Your task to perform on an android device: Clear the shopping cart on bestbuy. Add lenovo thinkpad to the cart on bestbuy Image 0: 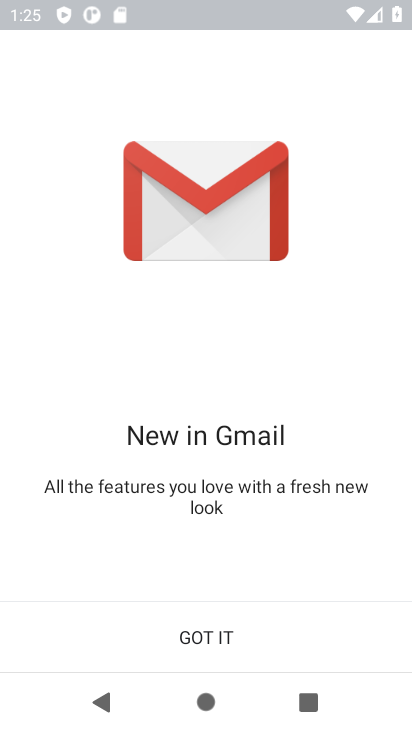
Step 0: press home button
Your task to perform on an android device: Clear the shopping cart on bestbuy. Add lenovo thinkpad to the cart on bestbuy Image 1: 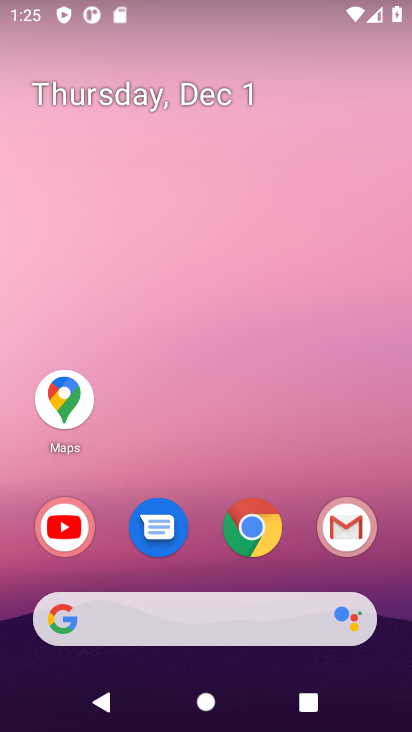
Step 1: click (249, 527)
Your task to perform on an android device: Clear the shopping cart on bestbuy. Add lenovo thinkpad to the cart on bestbuy Image 2: 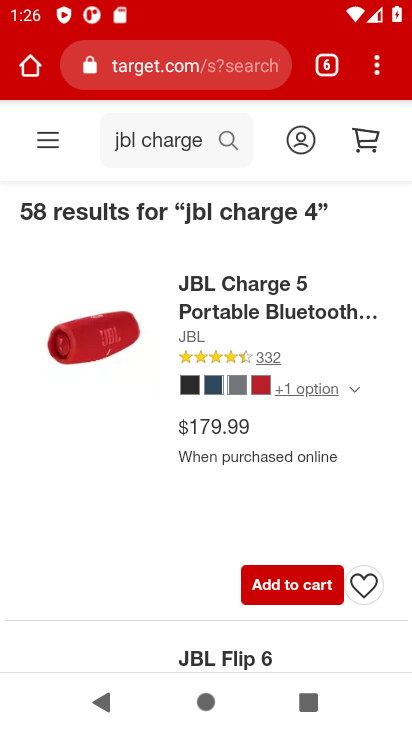
Step 2: click (201, 74)
Your task to perform on an android device: Clear the shopping cart on bestbuy. Add lenovo thinkpad to the cart on bestbuy Image 3: 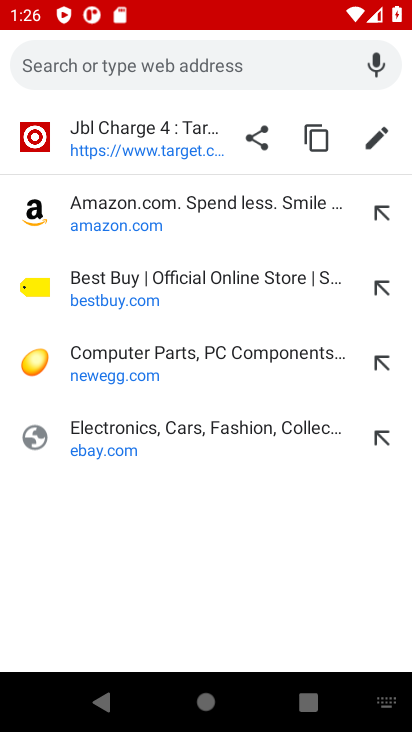
Step 3: click (97, 292)
Your task to perform on an android device: Clear the shopping cart on bestbuy. Add lenovo thinkpad to the cart on bestbuy Image 4: 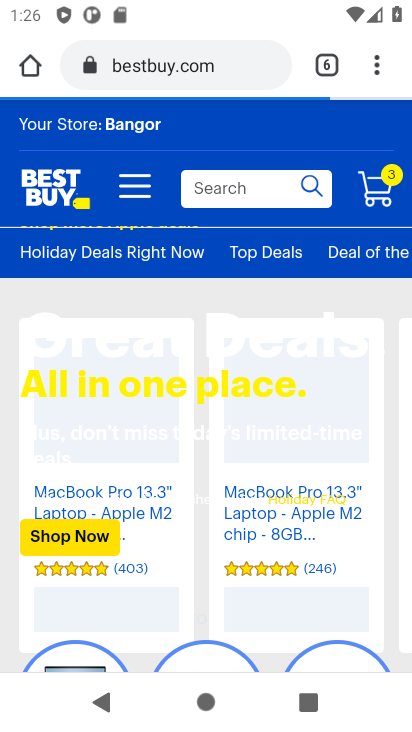
Step 4: click (370, 196)
Your task to perform on an android device: Clear the shopping cart on bestbuy. Add lenovo thinkpad to the cart on bestbuy Image 5: 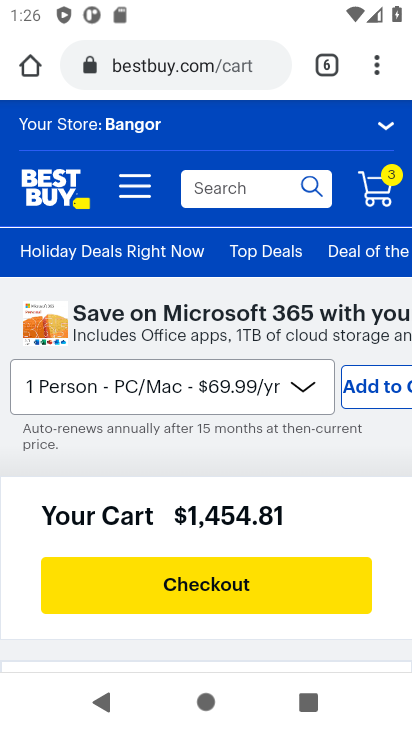
Step 5: drag from (369, 494) to (328, 161)
Your task to perform on an android device: Clear the shopping cart on bestbuy. Add lenovo thinkpad to the cart on bestbuy Image 6: 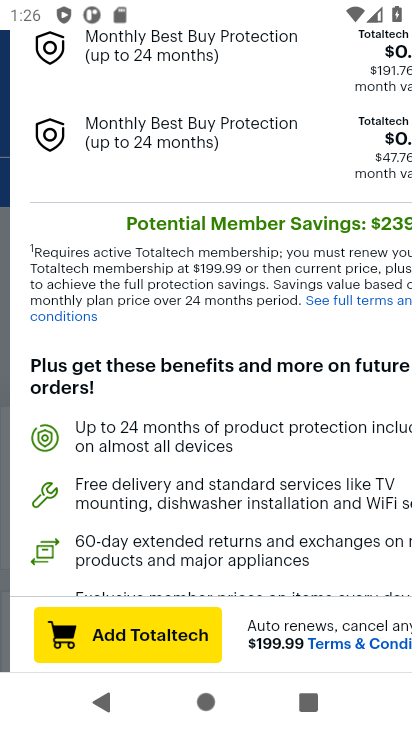
Step 6: click (242, 497)
Your task to perform on an android device: Clear the shopping cart on bestbuy. Add lenovo thinkpad to the cart on bestbuy Image 7: 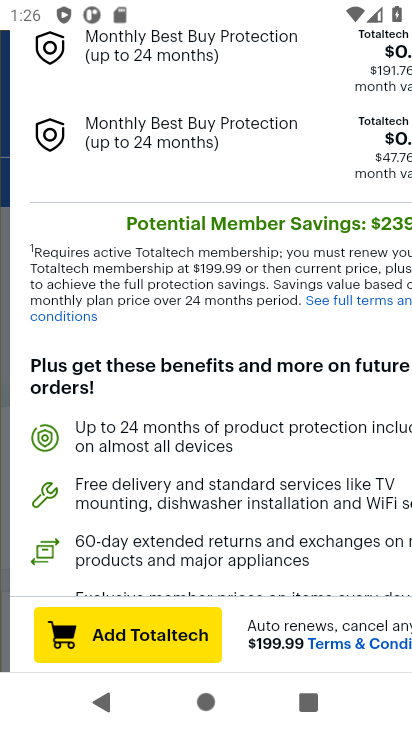
Step 7: drag from (287, 233) to (305, 575)
Your task to perform on an android device: Clear the shopping cart on bestbuy. Add lenovo thinkpad to the cart on bestbuy Image 8: 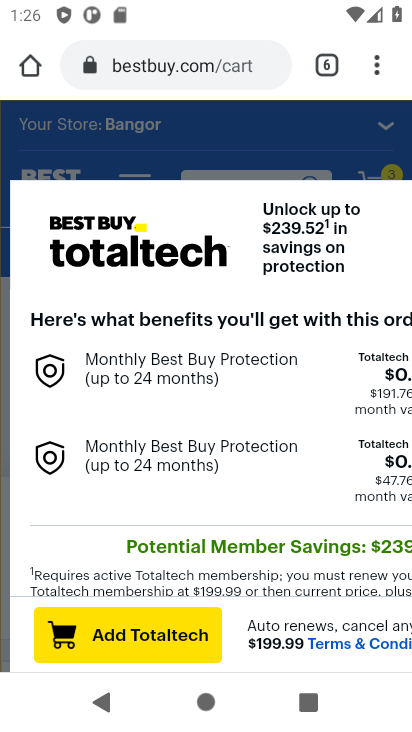
Step 8: click (296, 143)
Your task to perform on an android device: Clear the shopping cart on bestbuy. Add lenovo thinkpad to the cart on bestbuy Image 9: 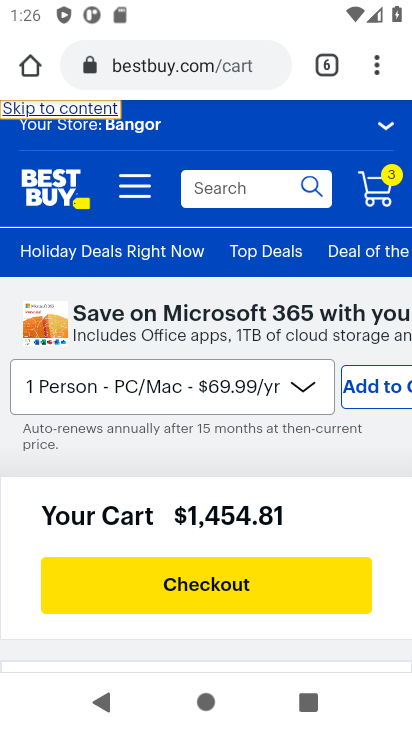
Step 9: drag from (273, 495) to (239, 261)
Your task to perform on an android device: Clear the shopping cart on bestbuy. Add lenovo thinkpad to the cart on bestbuy Image 10: 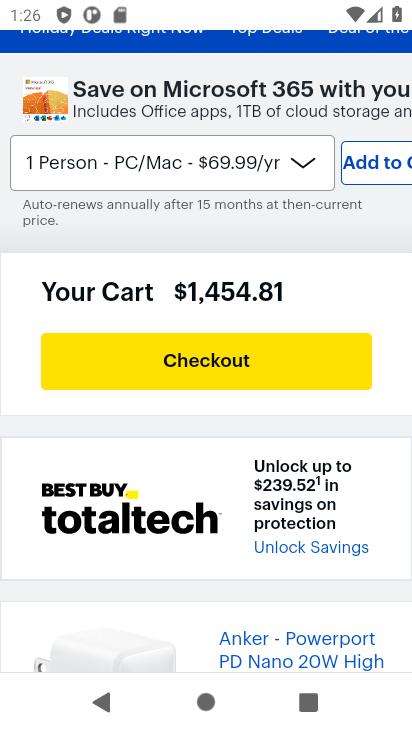
Step 10: drag from (281, 566) to (250, 200)
Your task to perform on an android device: Clear the shopping cart on bestbuy. Add lenovo thinkpad to the cart on bestbuy Image 11: 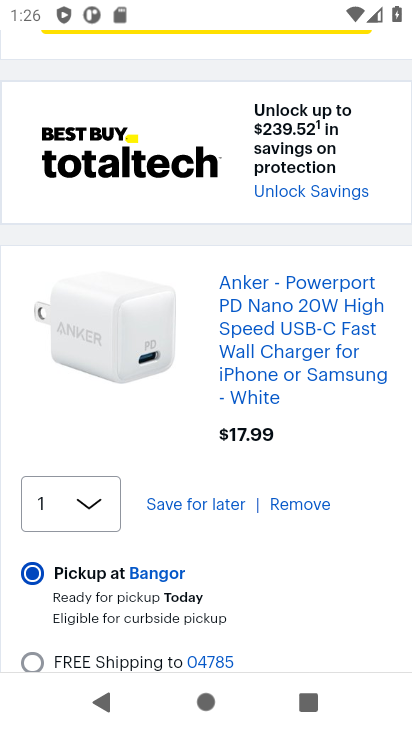
Step 11: click (296, 499)
Your task to perform on an android device: Clear the shopping cart on bestbuy. Add lenovo thinkpad to the cart on bestbuy Image 12: 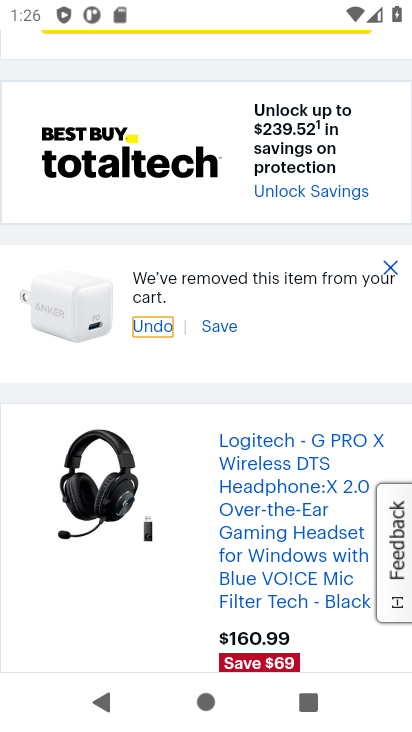
Step 12: drag from (287, 551) to (273, 261)
Your task to perform on an android device: Clear the shopping cart on bestbuy. Add lenovo thinkpad to the cart on bestbuy Image 13: 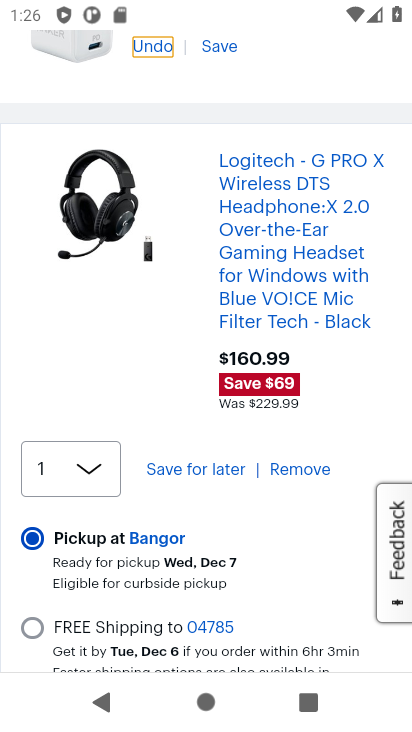
Step 13: click (298, 560)
Your task to perform on an android device: Clear the shopping cart on bestbuy. Add lenovo thinkpad to the cart on bestbuy Image 14: 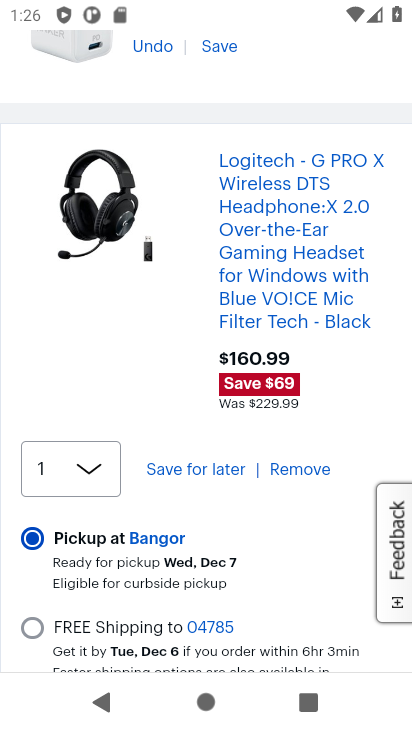
Step 14: click (299, 469)
Your task to perform on an android device: Clear the shopping cart on bestbuy. Add lenovo thinkpad to the cart on bestbuy Image 15: 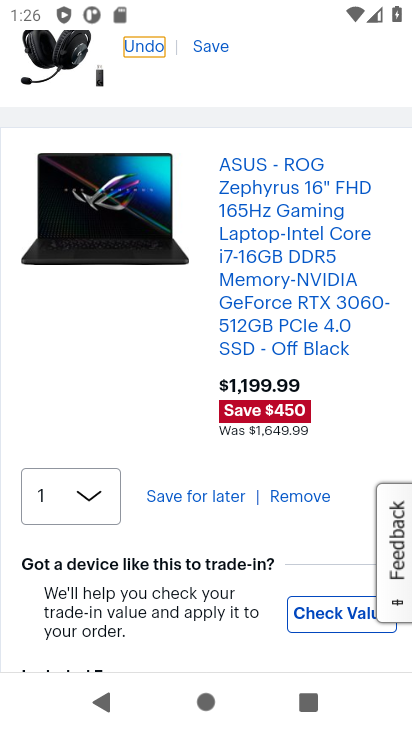
Step 15: click (294, 497)
Your task to perform on an android device: Clear the shopping cart on bestbuy. Add lenovo thinkpad to the cart on bestbuy Image 16: 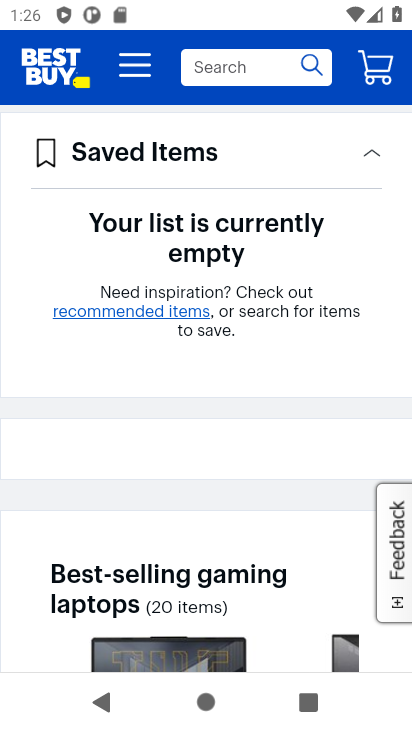
Step 16: click (241, 77)
Your task to perform on an android device: Clear the shopping cart on bestbuy. Add lenovo thinkpad to the cart on bestbuy Image 17: 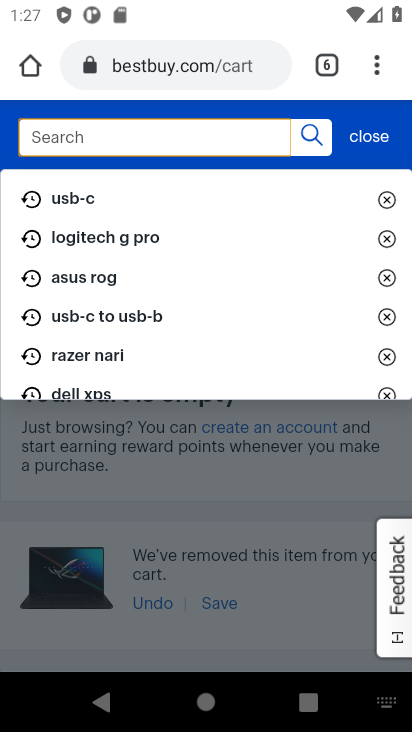
Step 17: type "lenovo thinkpad"
Your task to perform on an android device: Clear the shopping cart on bestbuy. Add lenovo thinkpad to the cart on bestbuy Image 18: 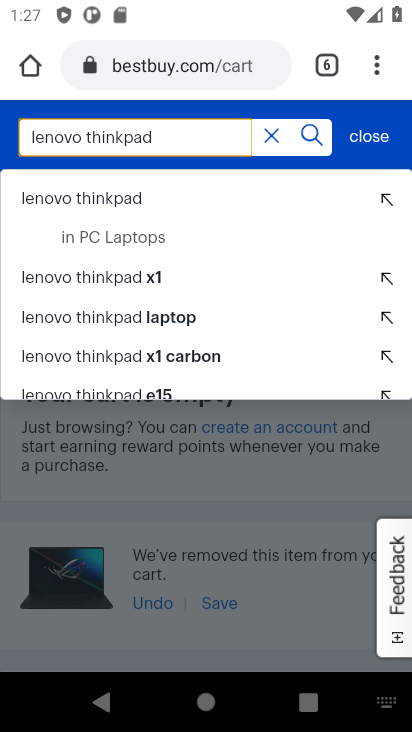
Step 18: click (125, 205)
Your task to perform on an android device: Clear the shopping cart on bestbuy. Add lenovo thinkpad to the cart on bestbuy Image 19: 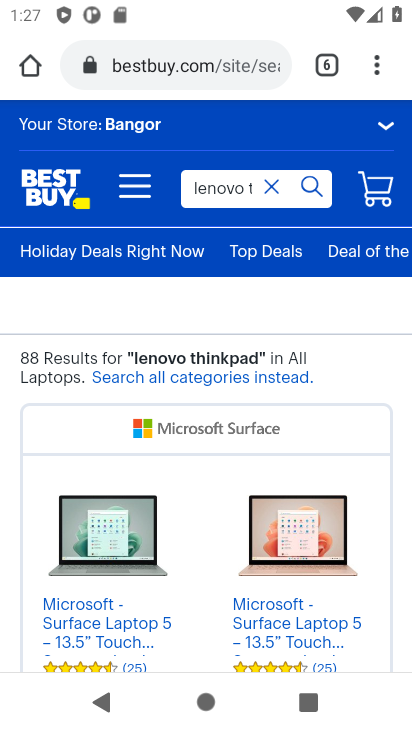
Step 19: drag from (231, 420) to (235, 144)
Your task to perform on an android device: Clear the shopping cart on bestbuy. Add lenovo thinkpad to the cart on bestbuy Image 20: 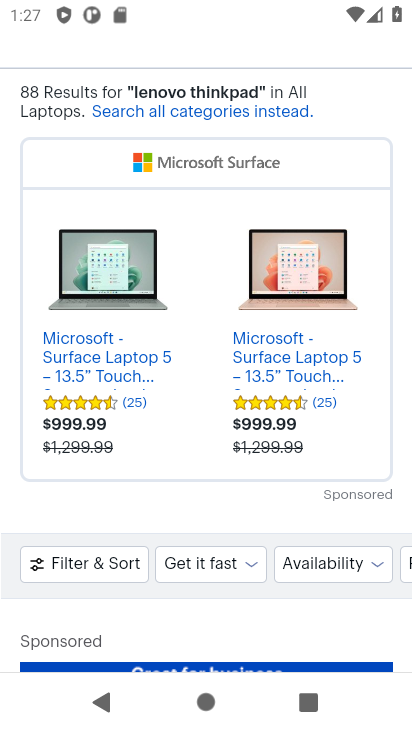
Step 20: drag from (340, 502) to (306, 268)
Your task to perform on an android device: Clear the shopping cart on bestbuy. Add lenovo thinkpad to the cart on bestbuy Image 21: 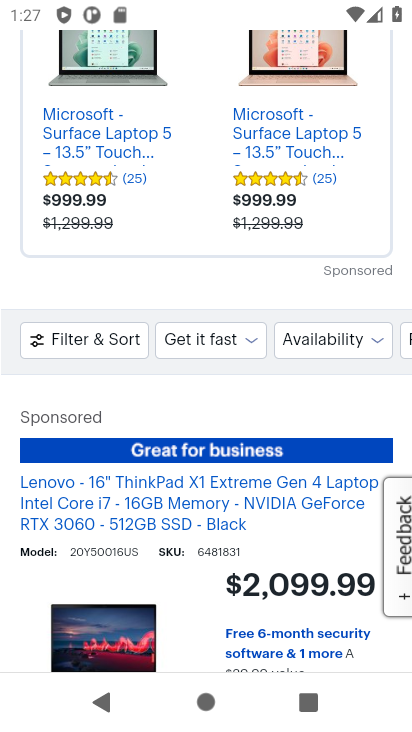
Step 21: drag from (283, 398) to (264, 195)
Your task to perform on an android device: Clear the shopping cart on bestbuy. Add lenovo thinkpad to the cart on bestbuy Image 22: 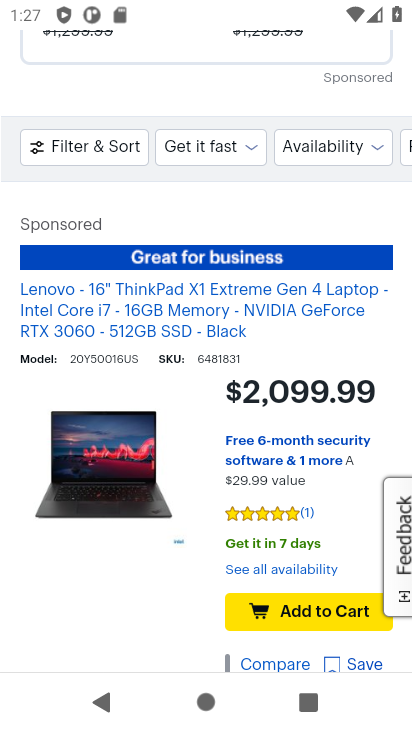
Step 22: click (307, 620)
Your task to perform on an android device: Clear the shopping cart on bestbuy. Add lenovo thinkpad to the cart on bestbuy Image 23: 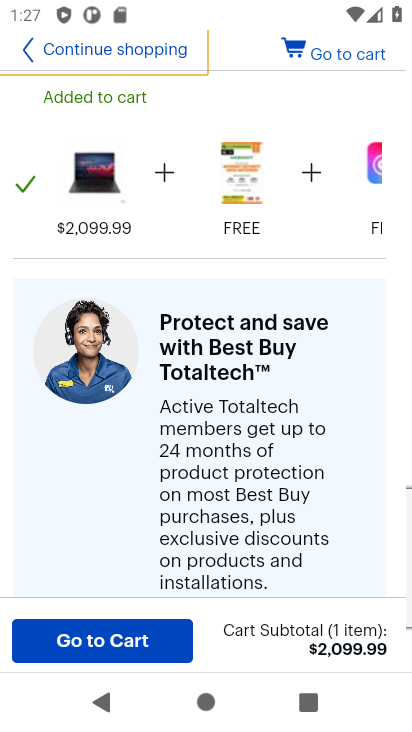
Step 23: task complete